Your task to perform on an android device: What's the weather today? Image 0: 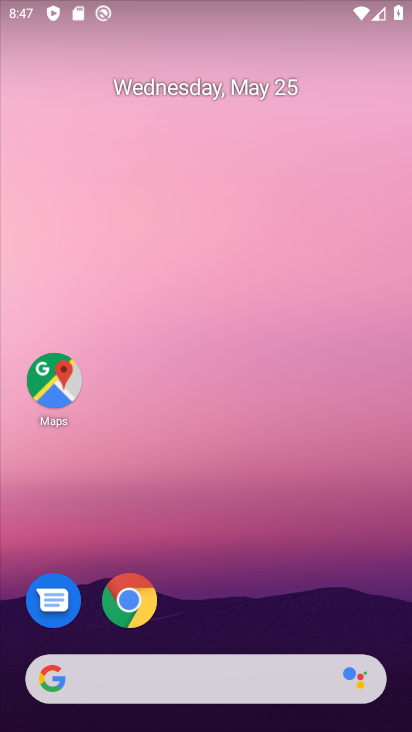
Step 0: click (194, 662)
Your task to perform on an android device: What's the weather today? Image 1: 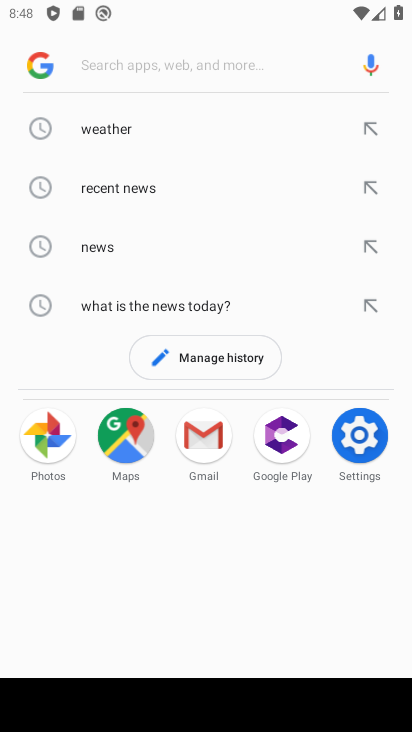
Step 1: type "what's the weather today "
Your task to perform on an android device: What's the weather today? Image 2: 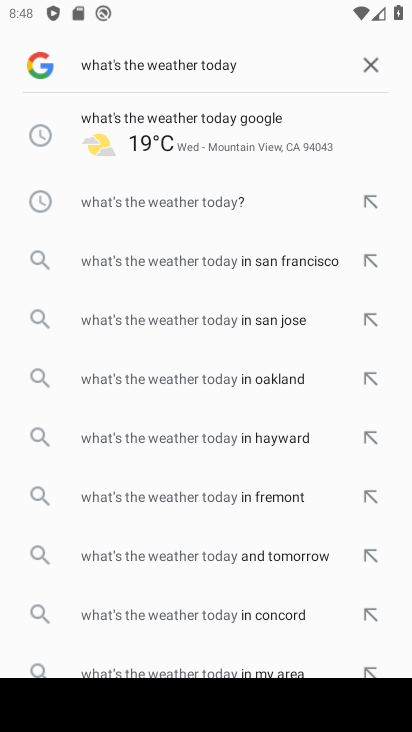
Step 2: click (188, 197)
Your task to perform on an android device: What's the weather today? Image 3: 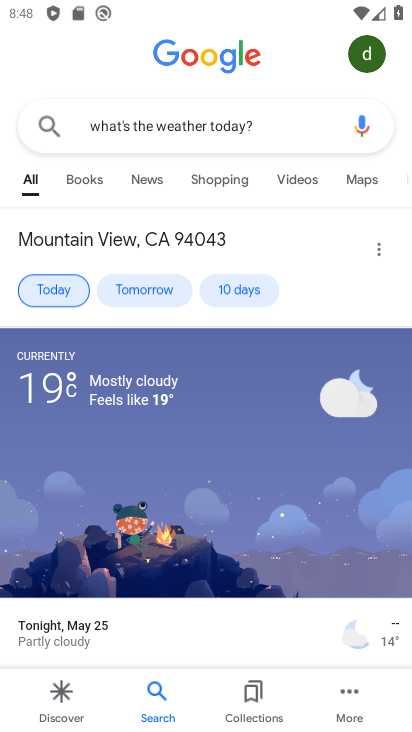
Step 3: task complete